Your task to perform on an android device: toggle sleep mode Image 0: 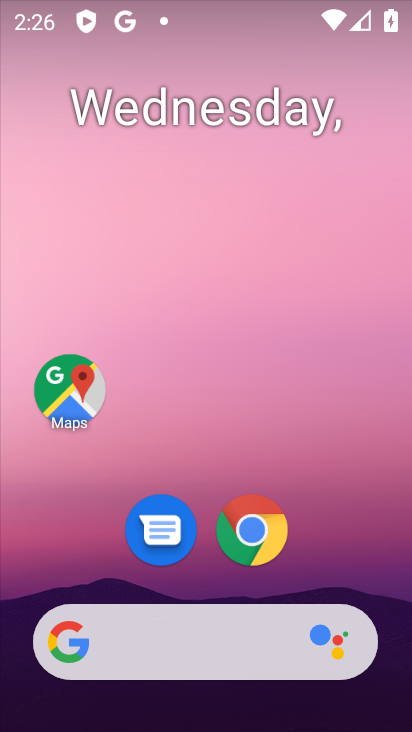
Step 0: drag from (321, 533) to (359, 122)
Your task to perform on an android device: toggle sleep mode Image 1: 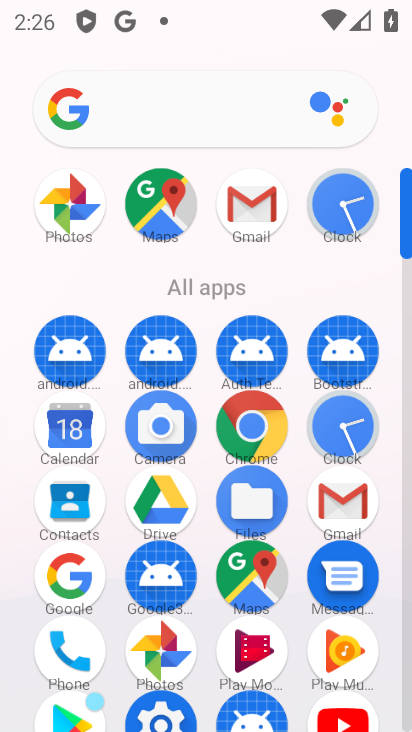
Step 1: drag from (172, 643) to (139, 367)
Your task to perform on an android device: toggle sleep mode Image 2: 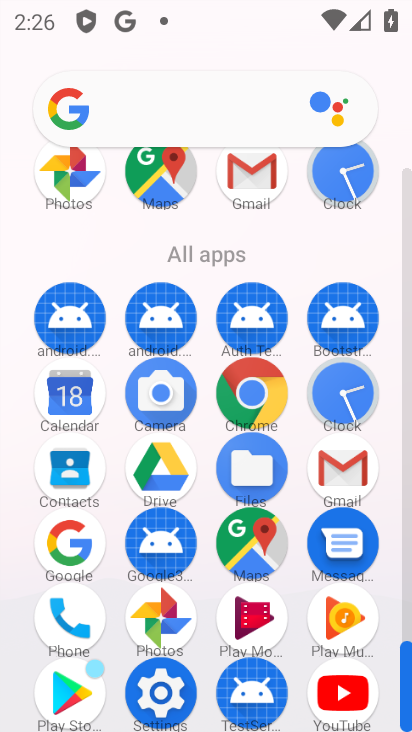
Step 2: click (150, 664)
Your task to perform on an android device: toggle sleep mode Image 3: 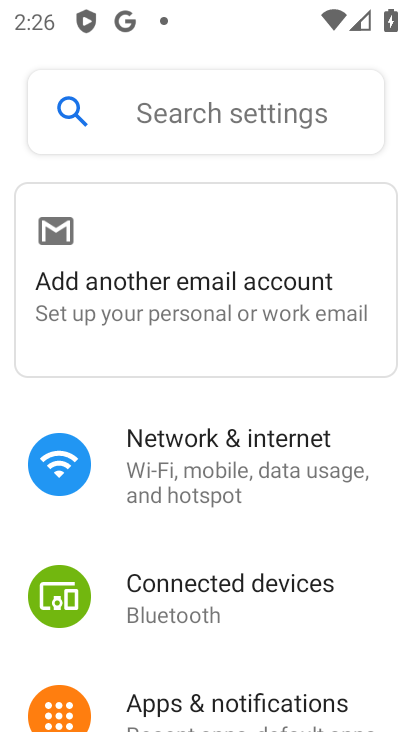
Step 3: click (200, 120)
Your task to perform on an android device: toggle sleep mode Image 4: 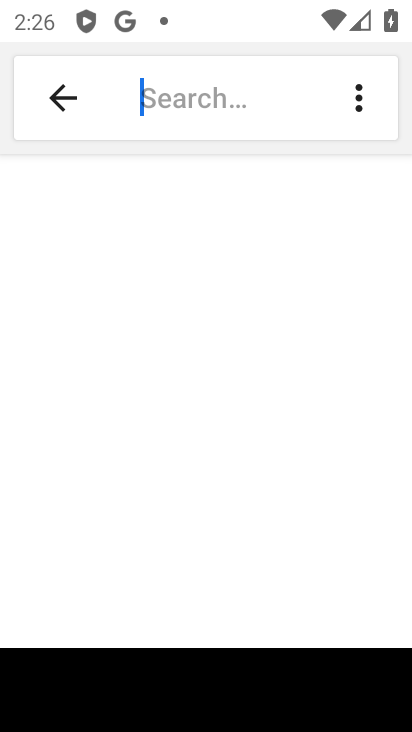
Step 4: type "sleep mode"
Your task to perform on an android device: toggle sleep mode Image 5: 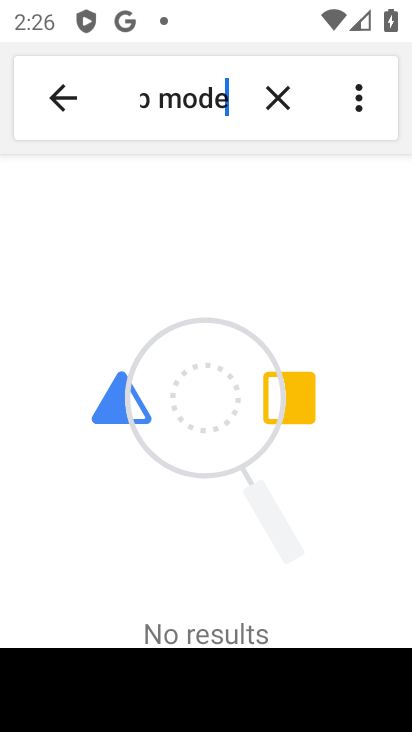
Step 5: task complete